Your task to perform on an android device: create a new album in the google photos Image 0: 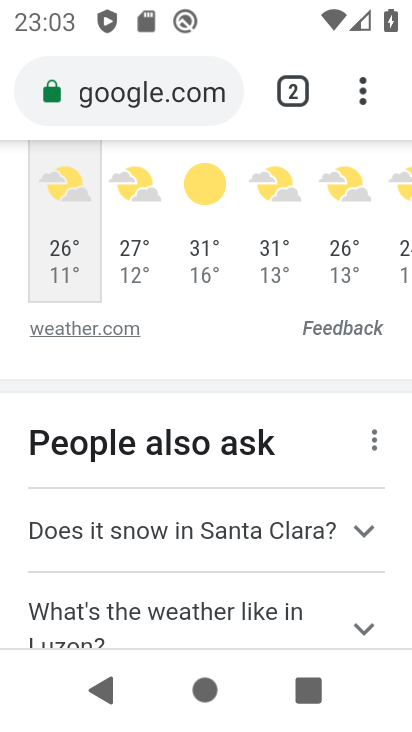
Step 0: press home button
Your task to perform on an android device: create a new album in the google photos Image 1: 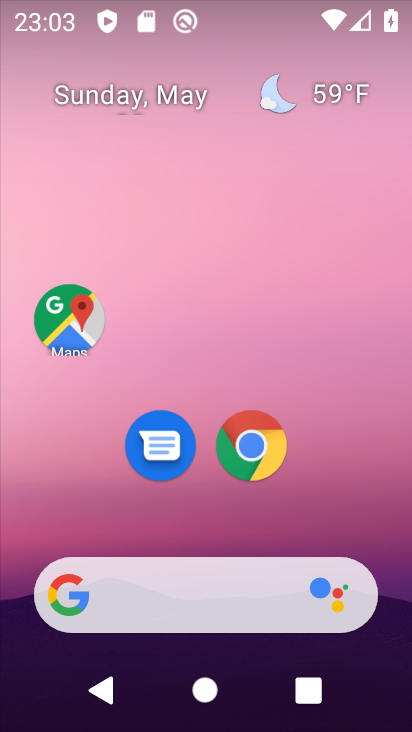
Step 1: drag from (245, 508) to (305, 58)
Your task to perform on an android device: create a new album in the google photos Image 2: 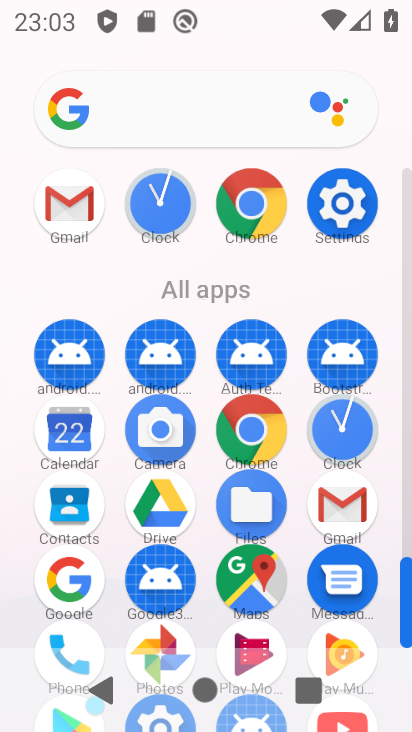
Step 2: drag from (297, 302) to (325, 31)
Your task to perform on an android device: create a new album in the google photos Image 3: 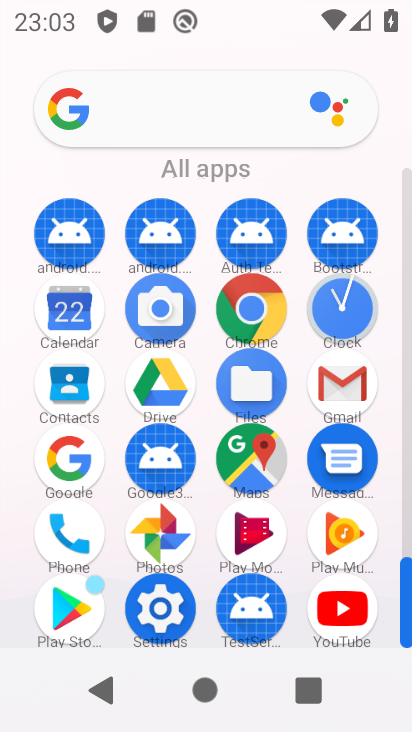
Step 3: click (161, 531)
Your task to perform on an android device: create a new album in the google photos Image 4: 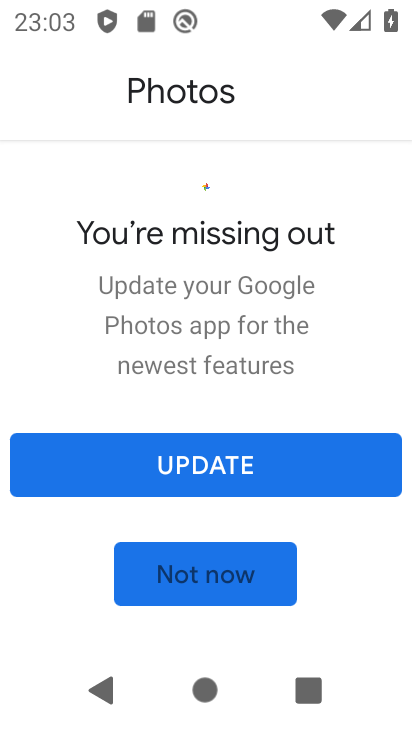
Step 4: click (232, 460)
Your task to perform on an android device: create a new album in the google photos Image 5: 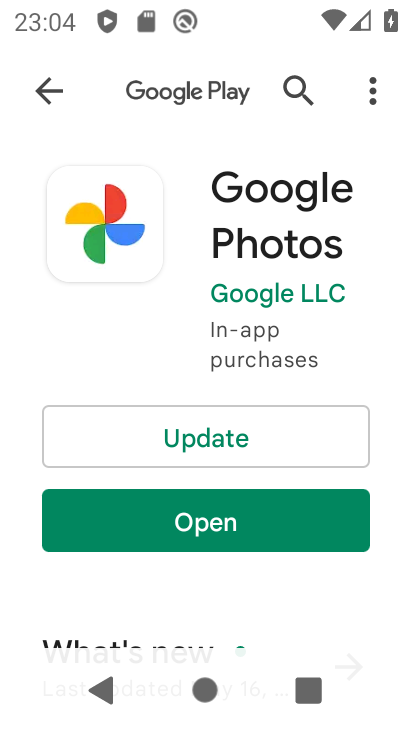
Step 5: click (235, 442)
Your task to perform on an android device: create a new album in the google photos Image 6: 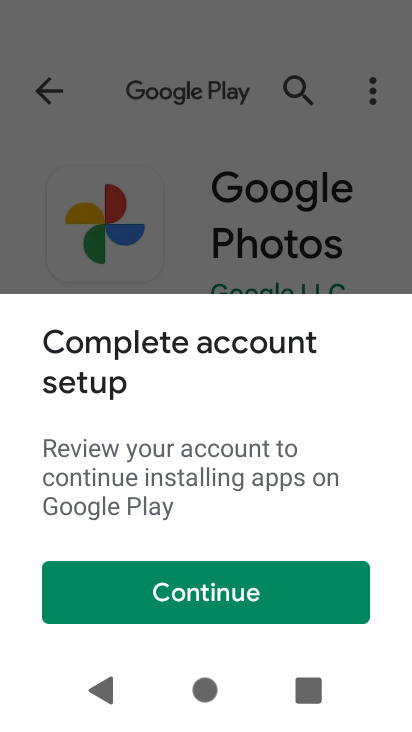
Step 6: click (300, 608)
Your task to perform on an android device: create a new album in the google photos Image 7: 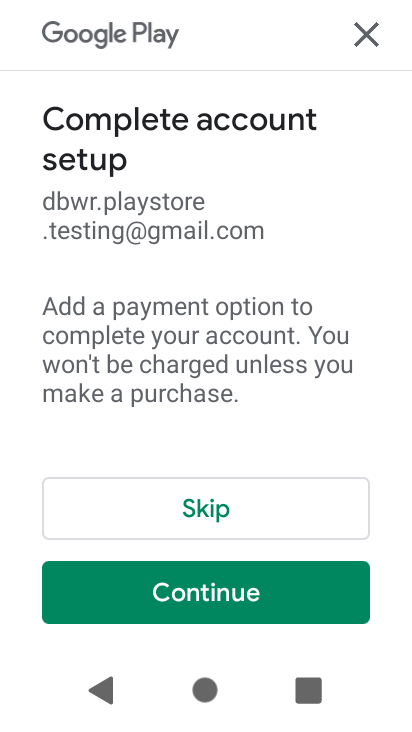
Step 7: click (308, 590)
Your task to perform on an android device: create a new album in the google photos Image 8: 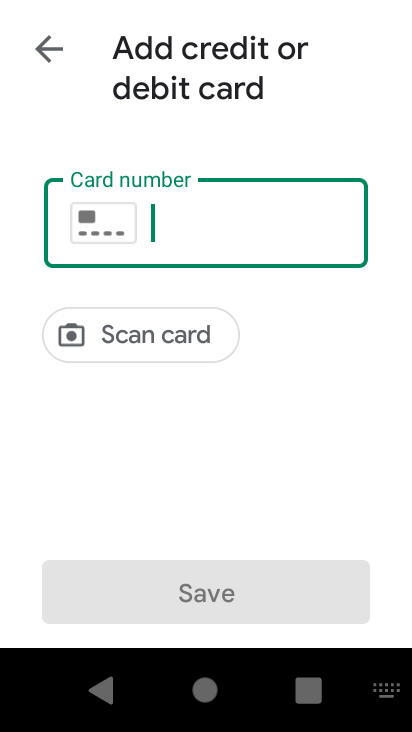
Step 8: click (66, 47)
Your task to perform on an android device: create a new album in the google photos Image 9: 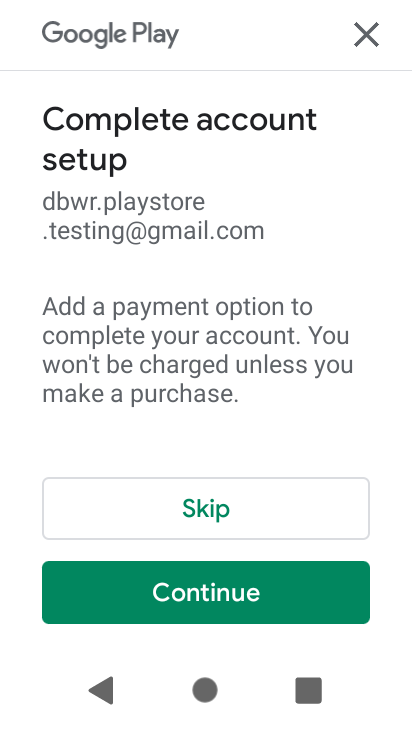
Step 9: click (352, 42)
Your task to perform on an android device: create a new album in the google photos Image 10: 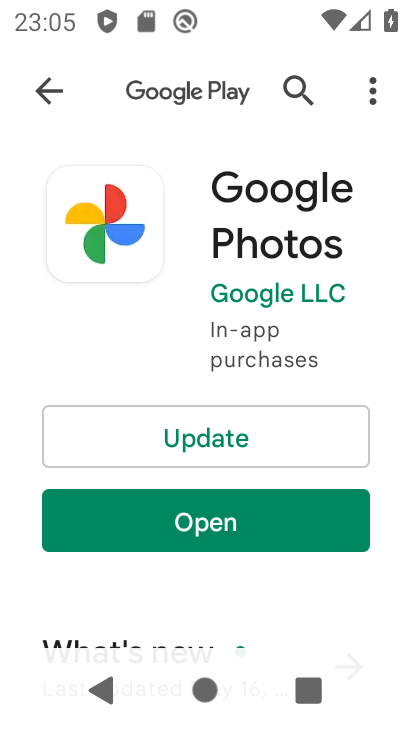
Step 10: click (299, 426)
Your task to perform on an android device: create a new album in the google photos Image 11: 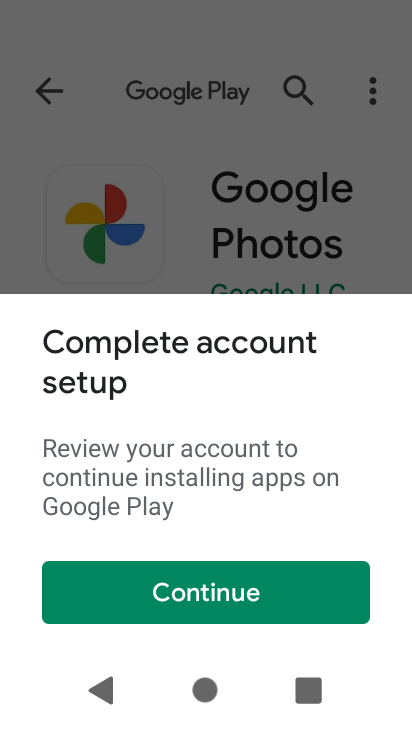
Step 11: click (240, 598)
Your task to perform on an android device: create a new album in the google photos Image 12: 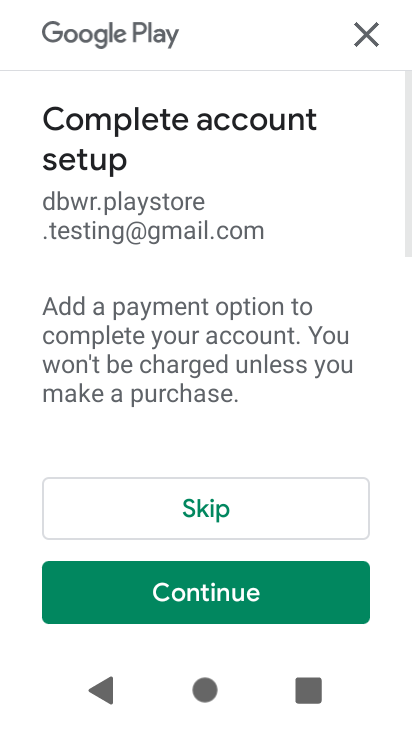
Step 12: click (261, 499)
Your task to perform on an android device: create a new album in the google photos Image 13: 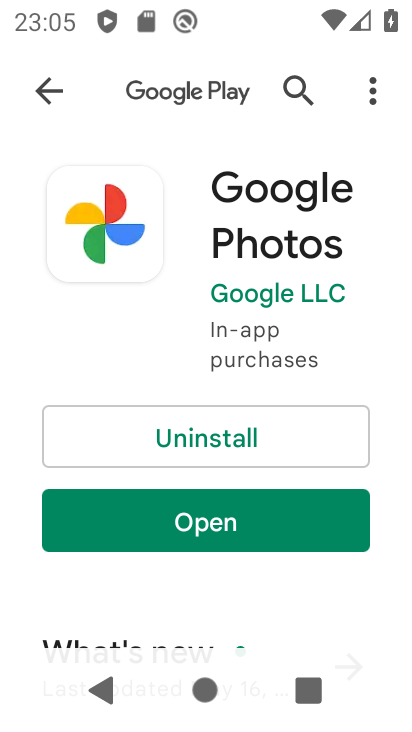
Step 13: click (286, 517)
Your task to perform on an android device: create a new album in the google photos Image 14: 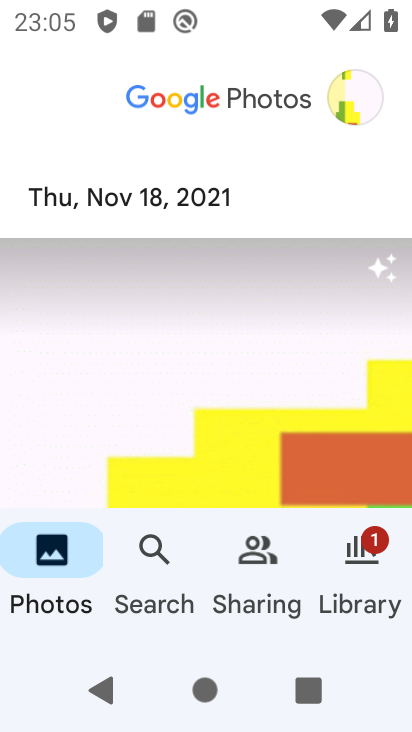
Step 14: drag from (188, 424) to (252, 206)
Your task to perform on an android device: create a new album in the google photos Image 15: 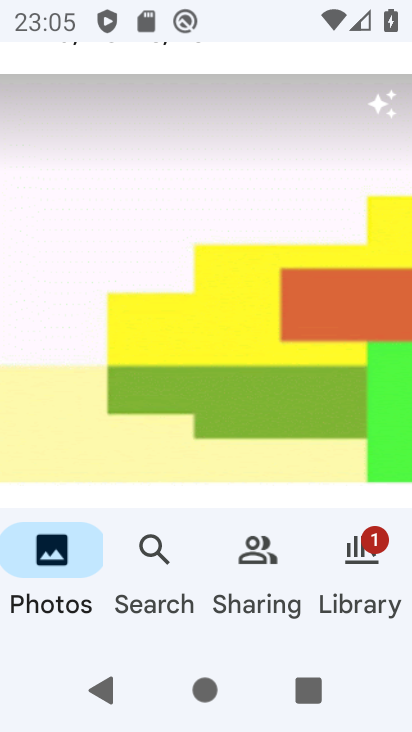
Step 15: click (42, 568)
Your task to perform on an android device: create a new album in the google photos Image 16: 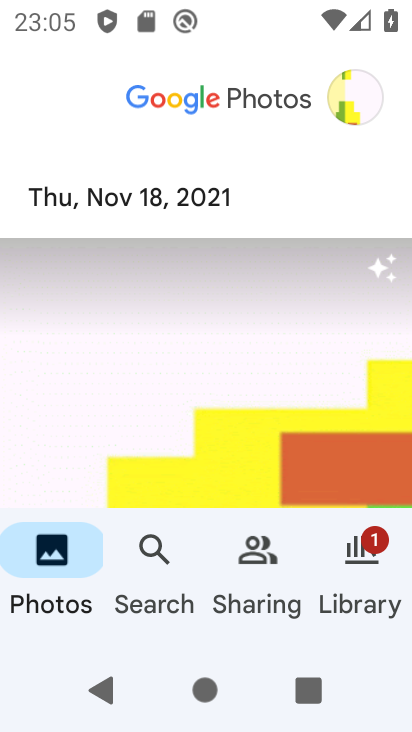
Step 16: click (132, 332)
Your task to perform on an android device: create a new album in the google photos Image 17: 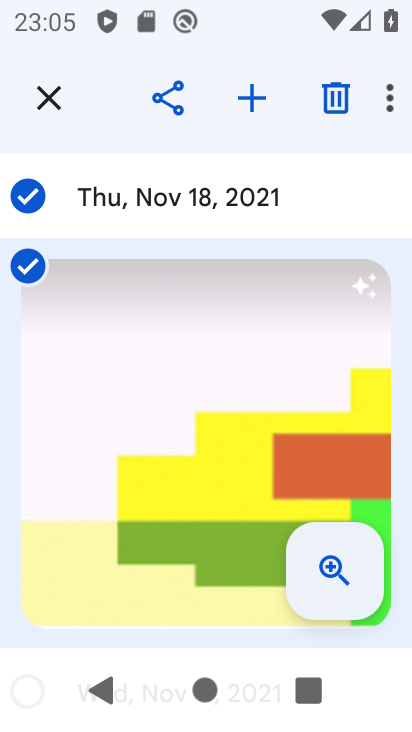
Step 17: click (254, 89)
Your task to perform on an android device: create a new album in the google photos Image 18: 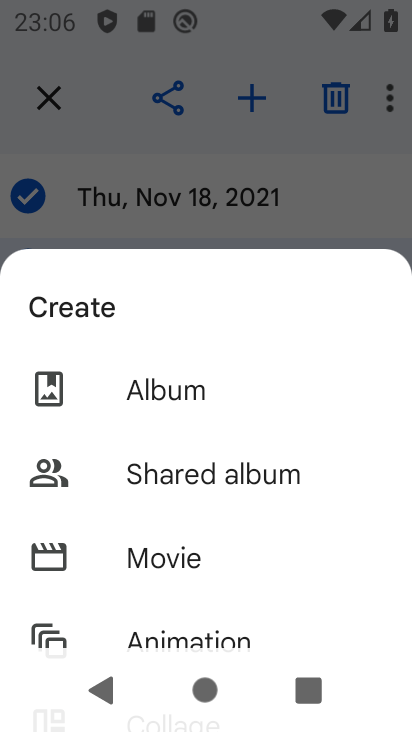
Step 18: click (157, 398)
Your task to perform on an android device: create a new album in the google photos Image 19: 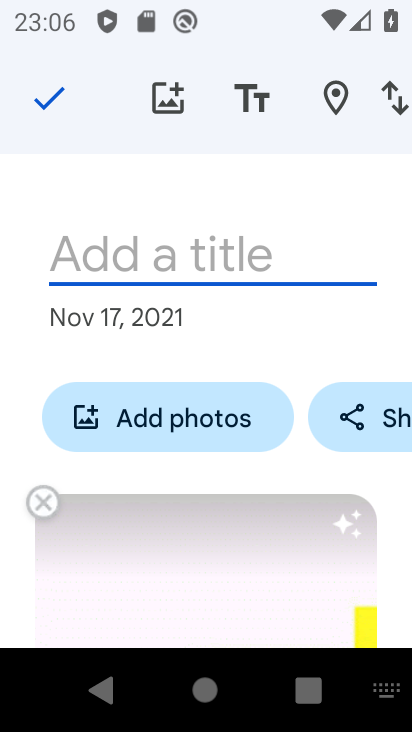
Step 19: type "vhh"
Your task to perform on an android device: create a new album in the google photos Image 20: 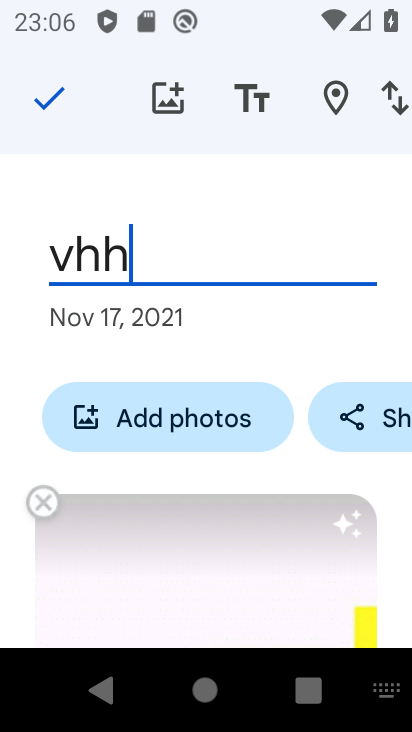
Step 20: click (51, 87)
Your task to perform on an android device: create a new album in the google photos Image 21: 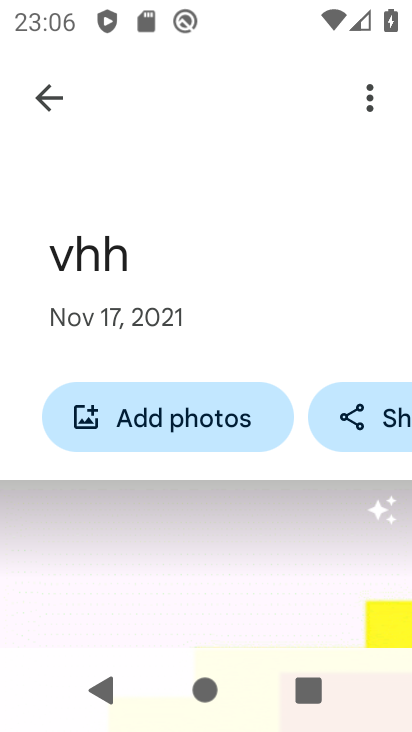
Step 21: task complete